Your task to perform on an android device: turn on improve location accuracy Image 0: 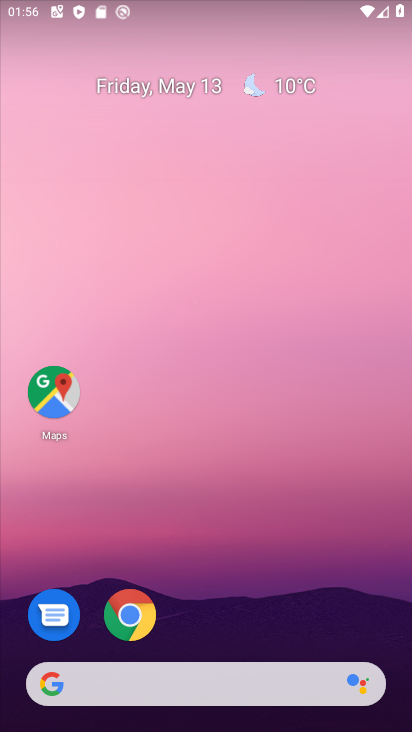
Step 0: drag from (165, 511) to (67, 121)
Your task to perform on an android device: turn on improve location accuracy Image 1: 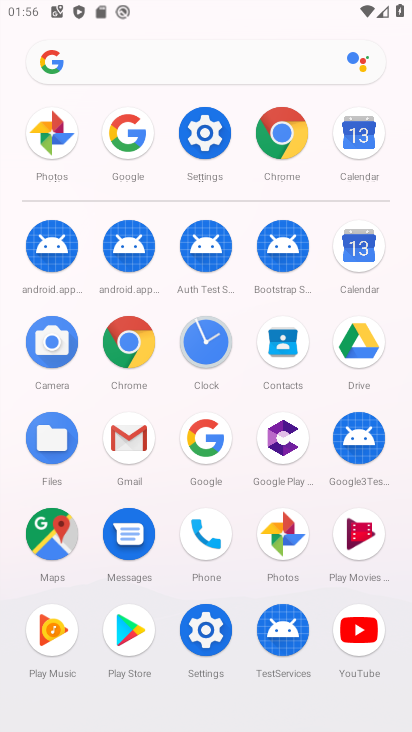
Step 1: click (211, 139)
Your task to perform on an android device: turn on improve location accuracy Image 2: 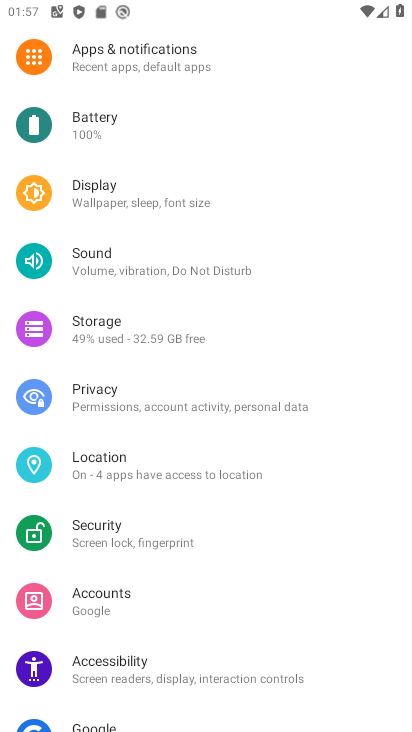
Step 2: click (112, 462)
Your task to perform on an android device: turn on improve location accuracy Image 3: 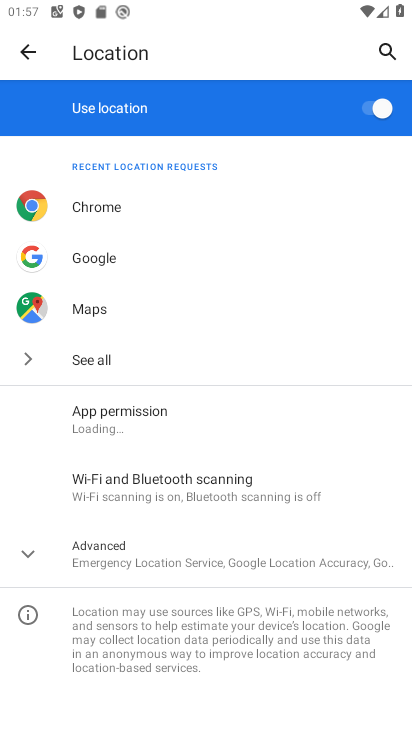
Step 3: click (130, 559)
Your task to perform on an android device: turn on improve location accuracy Image 4: 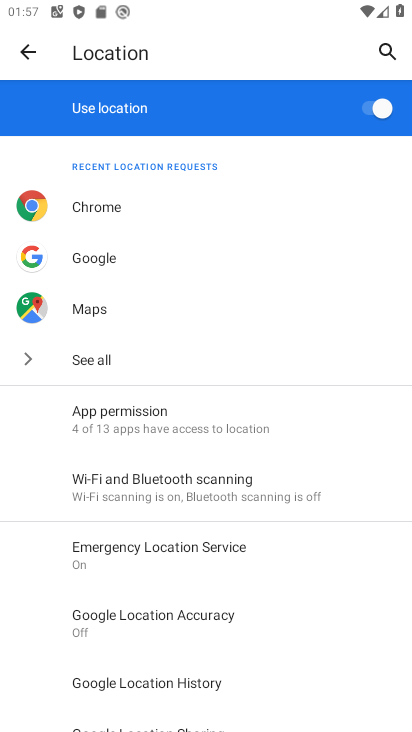
Step 4: click (94, 622)
Your task to perform on an android device: turn on improve location accuracy Image 5: 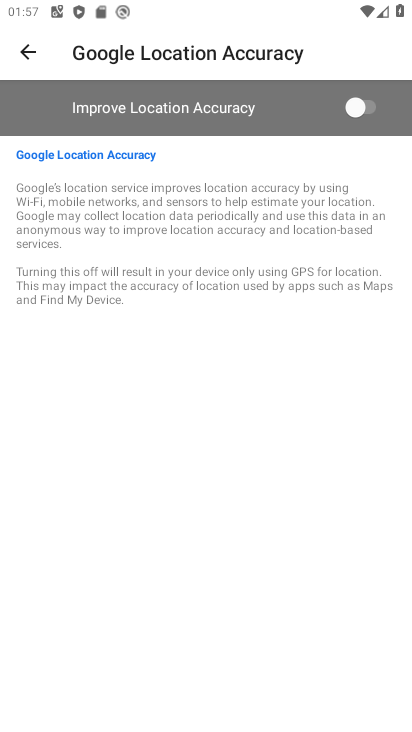
Step 5: click (356, 109)
Your task to perform on an android device: turn on improve location accuracy Image 6: 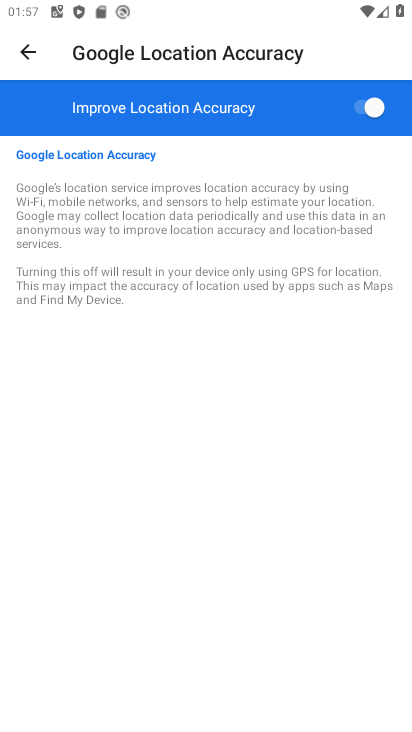
Step 6: task complete